Your task to perform on an android device: Go to Google maps Image 0: 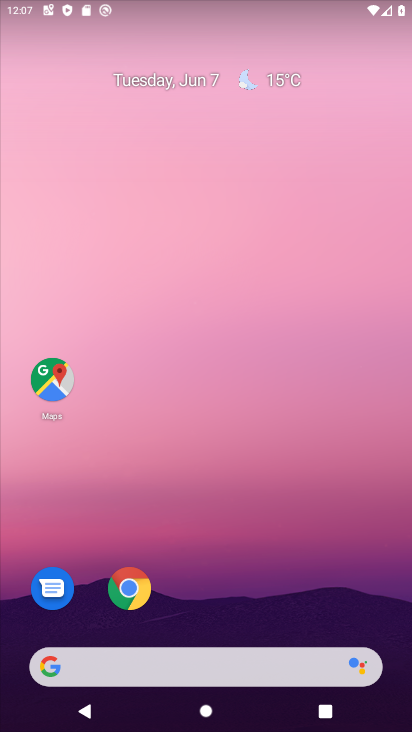
Step 0: click (60, 370)
Your task to perform on an android device: Go to Google maps Image 1: 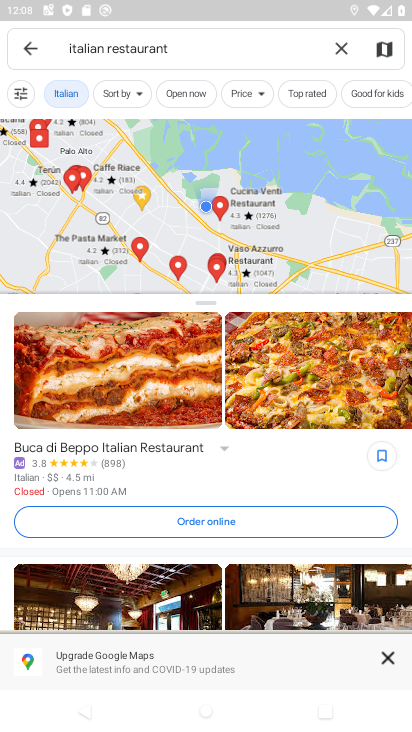
Step 1: task complete